Your task to perform on an android device: find snoozed emails in the gmail app Image 0: 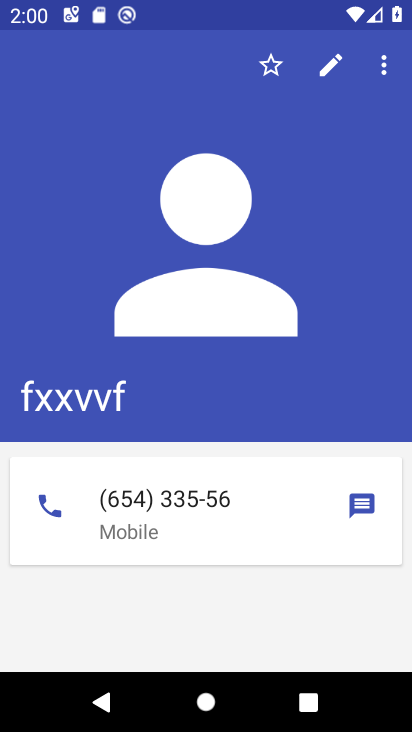
Step 0: press home button
Your task to perform on an android device: find snoozed emails in the gmail app Image 1: 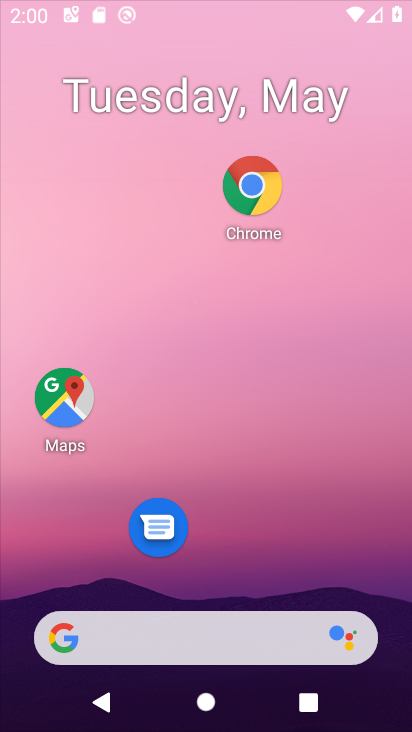
Step 1: click (360, 489)
Your task to perform on an android device: find snoozed emails in the gmail app Image 2: 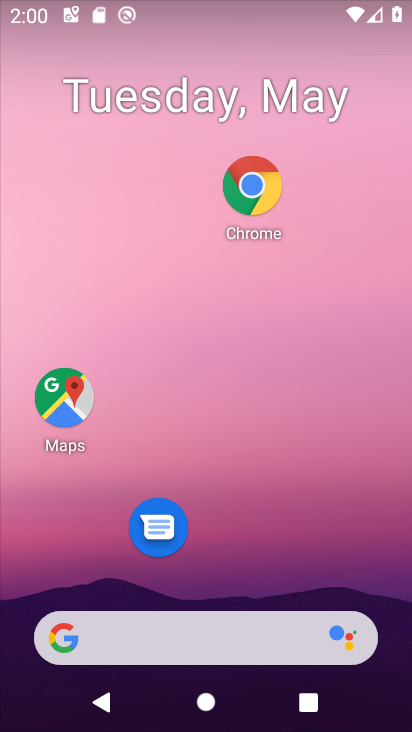
Step 2: drag from (275, 507) to (150, 166)
Your task to perform on an android device: find snoozed emails in the gmail app Image 3: 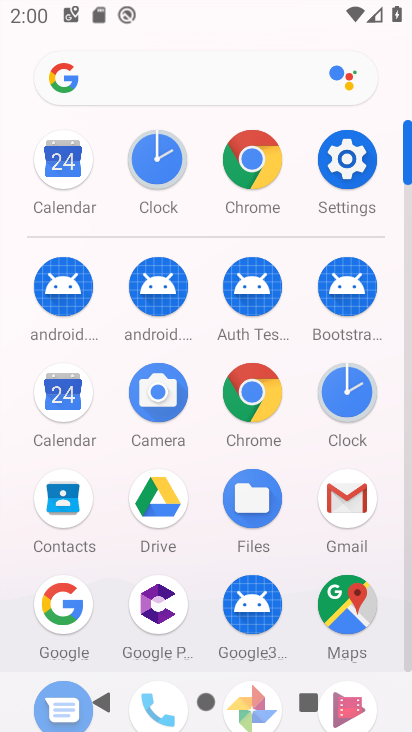
Step 3: click (339, 487)
Your task to perform on an android device: find snoozed emails in the gmail app Image 4: 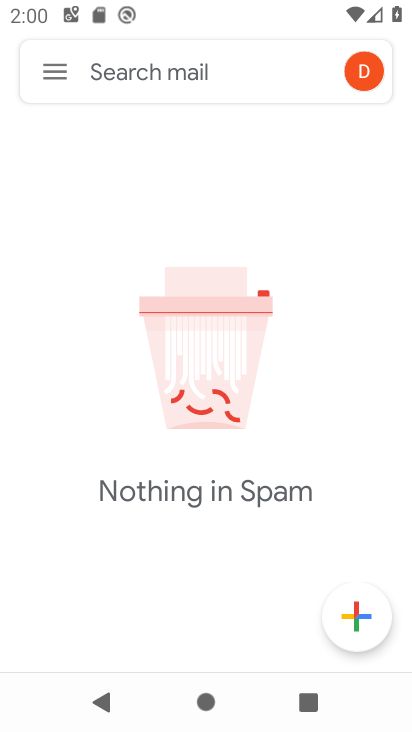
Step 4: click (55, 71)
Your task to perform on an android device: find snoozed emails in the gmail app Image 5: 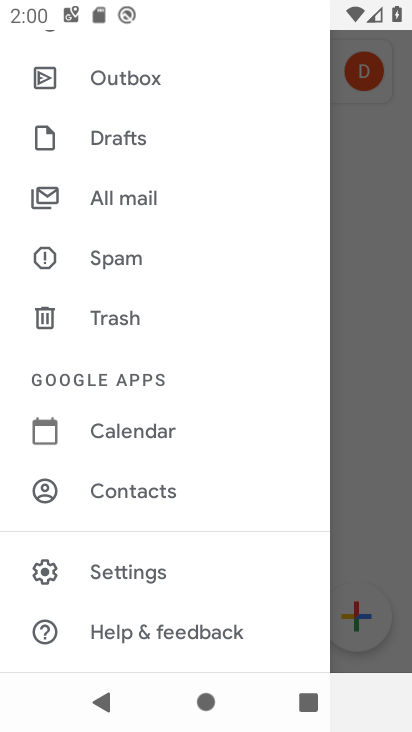
Step 5: drag from (169, 270) to (259, 672)
Your task to perform on an android device: find snoozed emails in the gmail app Image 6: 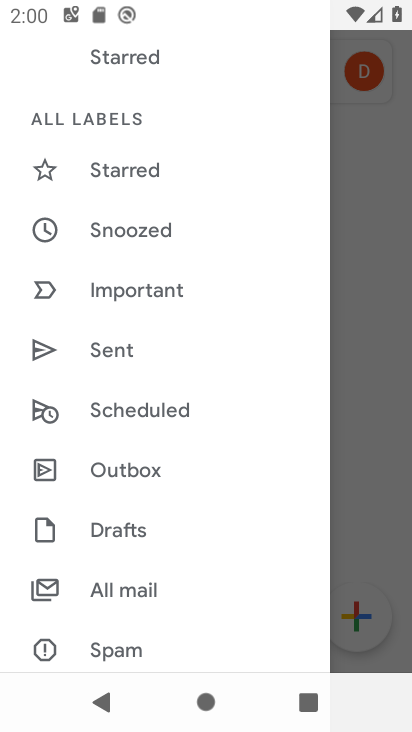
Step 6: click (157, 224)
Your task to perform on an android device: find snoozed emails in the gmail app Image 7: 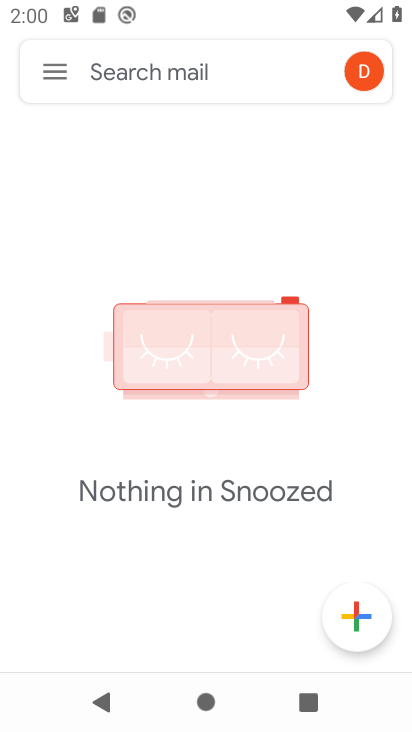
Step 7: task complete